Your task to perform on an android device: change notifications settings Image 0: 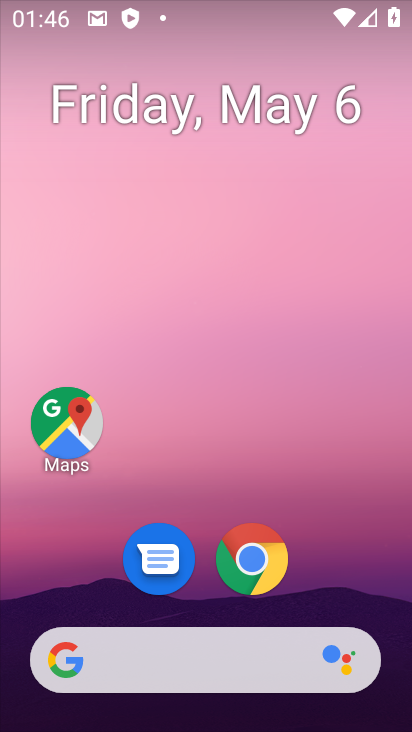
Step 0: drag from (308, 628) to (288, 36)
Your task to perform on an android device: change notifications settings Image 1: 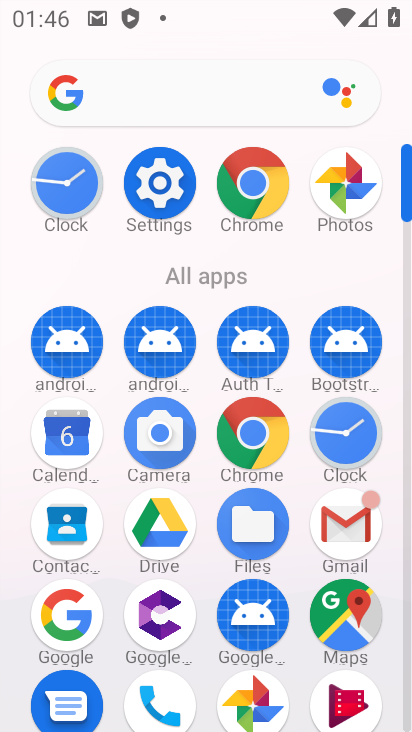
Step 1: drag from (285, 638) to (301, 167)
Your task to perform on an android device: change notifications settings Image 2: 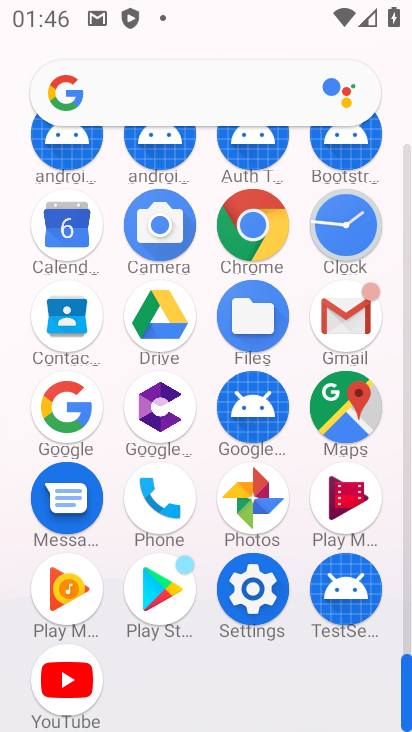
Step 2: click (257, 584)
Your task to perform on an android device: change notifications settings Image 3: 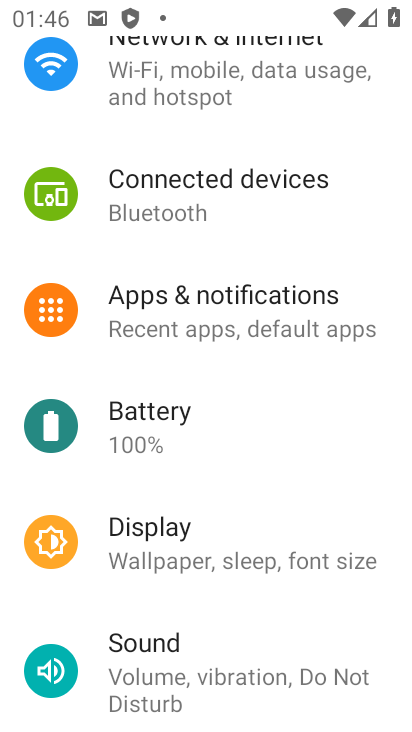
Step 3: click (248, 311)
Your task to perform on an android device: change notifications settings Image 4: 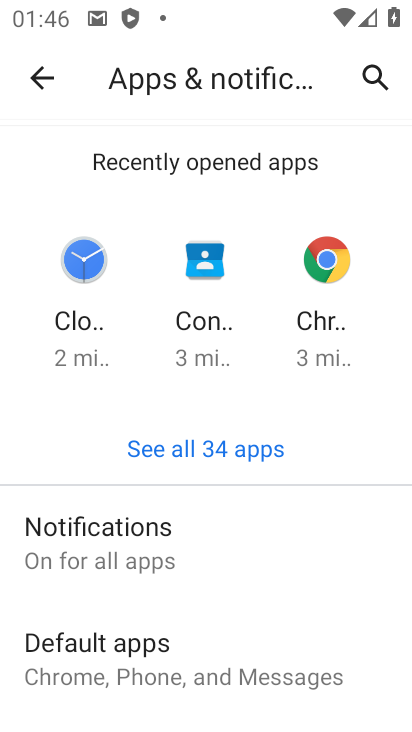
Step 4: drag from (245, 659) to (243, 440)
Your task to perform on an android device: change notifications settings Image 5: 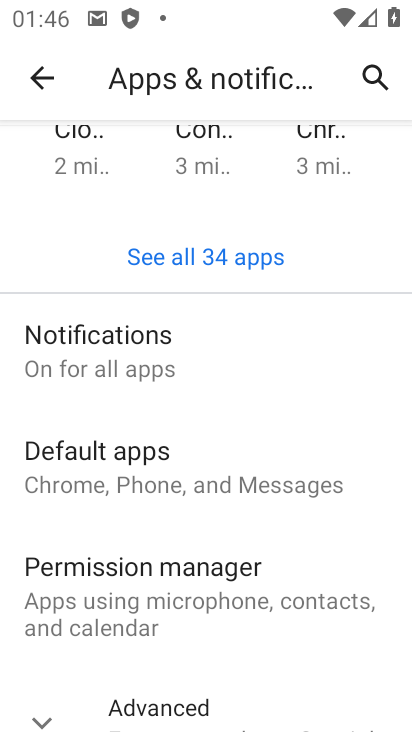
Step 5: click (187, 364)
Your task to perform on an android device: change notifications settings Image 6: 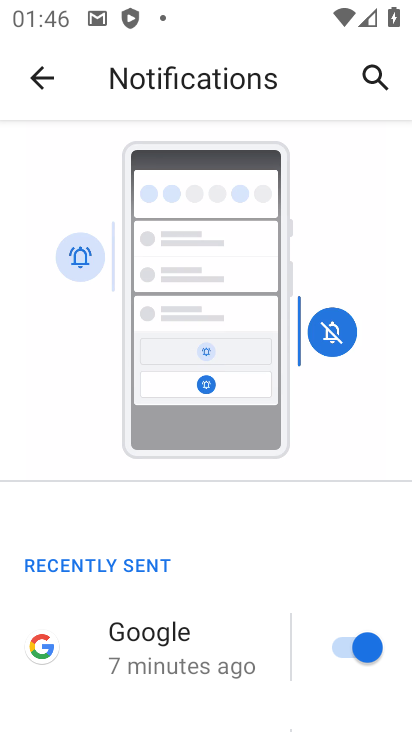
Step 6: drag from (241, 602) to (265, 215)
Your task to perform on an android device: change notifications settings Image 7: 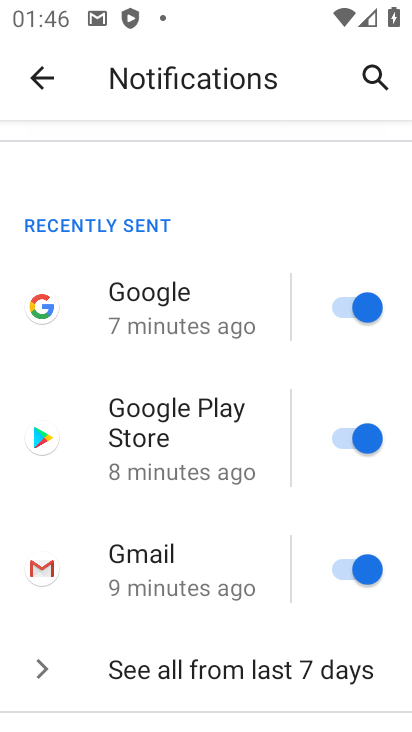
Step 7: drag from (272, 684) to (286, 197)
Your task to perform on an android device: change notifications settings Image 8: 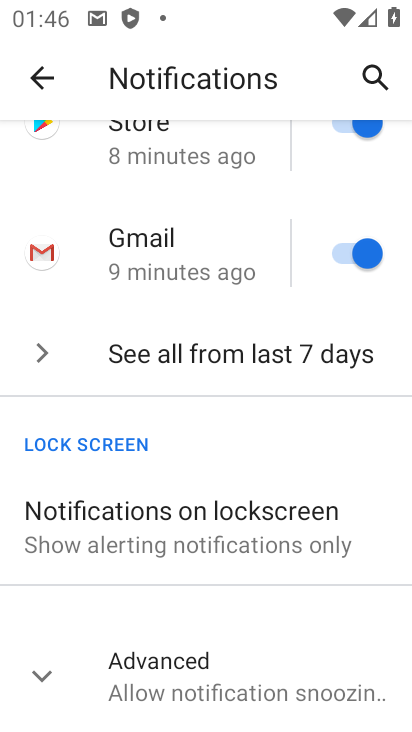
Step 8: drag from (301, 302) to (287, 227)
Your task to perform on an android device: change notifications settings Image 9: 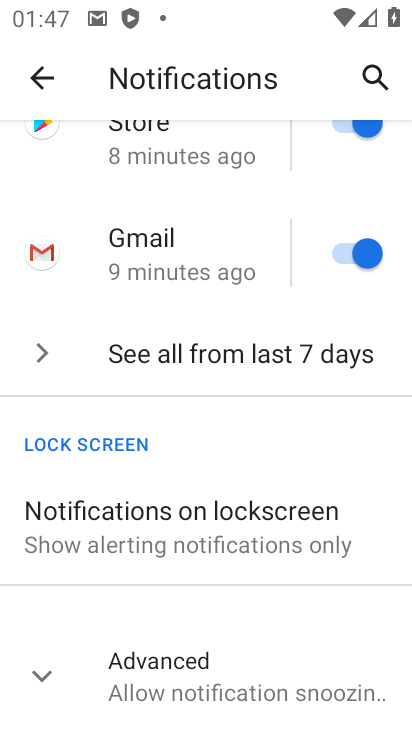
Step 9: drag from (288, 250) to (276, 644)
Your task to perform on an android device: change notifications settings Image 10: 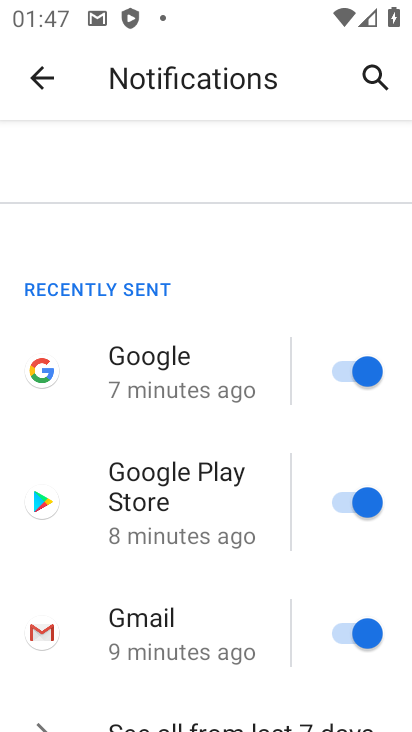
Step 10: click (343, 370)
Your task to perform on an android device: change notifications settings Image 11: 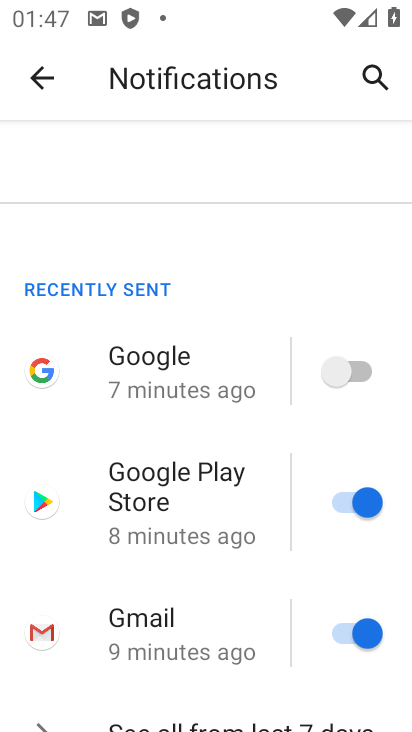
Step 11: click (338, 502)
Your task to perform on an android device: change notifications settings Image 12: 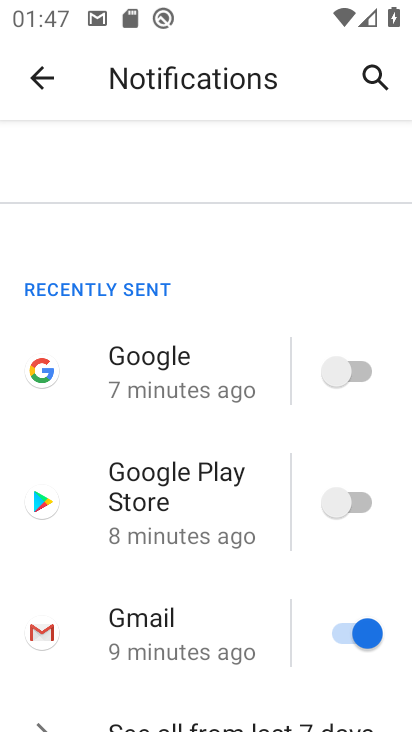
Step 12: click (340, 630)
Your task to perform on an android device: change notifications settings Image 13: 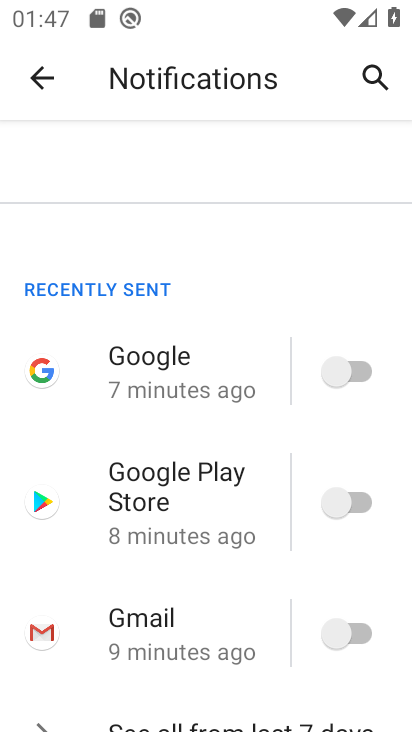
Step 13: task complete